Your task to perform on an android device: turn notification dots on Image 0: 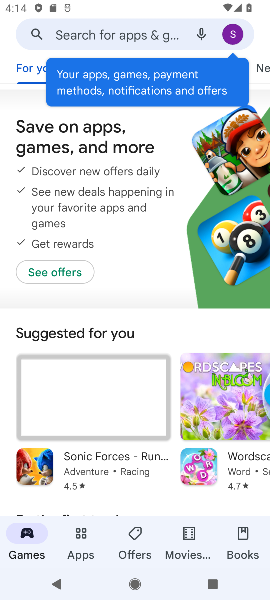
Step 0: press home button
Your task to perform on an android device: turn notification dots on Image 1: 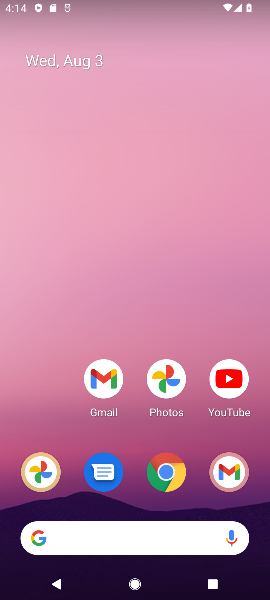
Step 1: drag from (133, 434) to (157, 58)
Your task to perform on an android device: turn notification dots on Image 2: 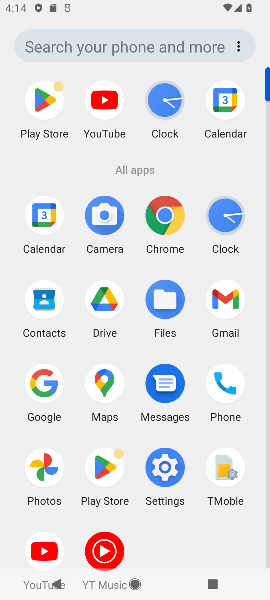
Step 2: click (163, 469)
Your task to perform on an android device: turn notification dots on Image 3: 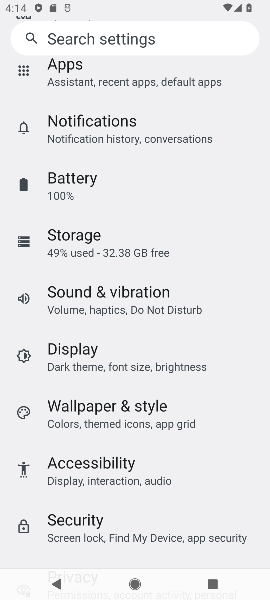
Step 3: click (129, 140)
Your task to perform on an android device: turn notification dots on Image 4: 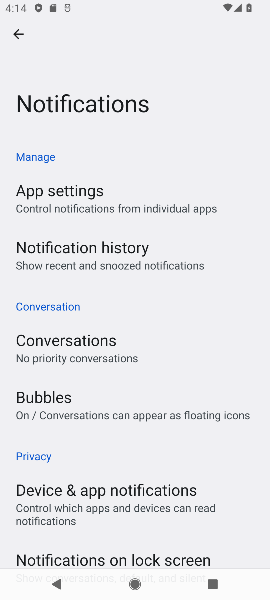
Step 4: task complete